Your task to perform on an android device: Clear the cart on target.com. Image 0: 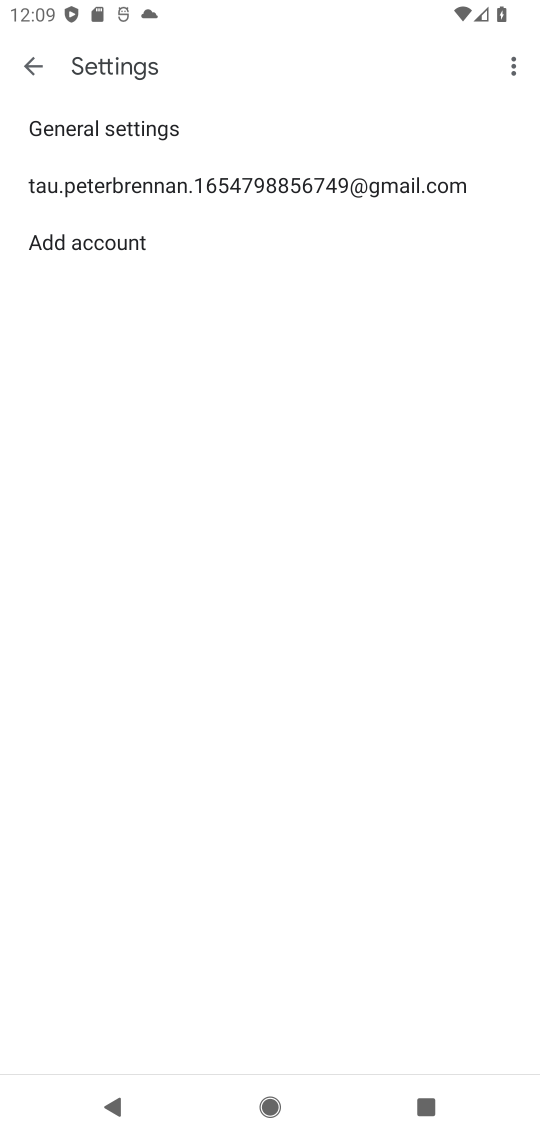
Step 0: press home button
Your task to perform on an android device: Clear the cart on target.com. Image 1: 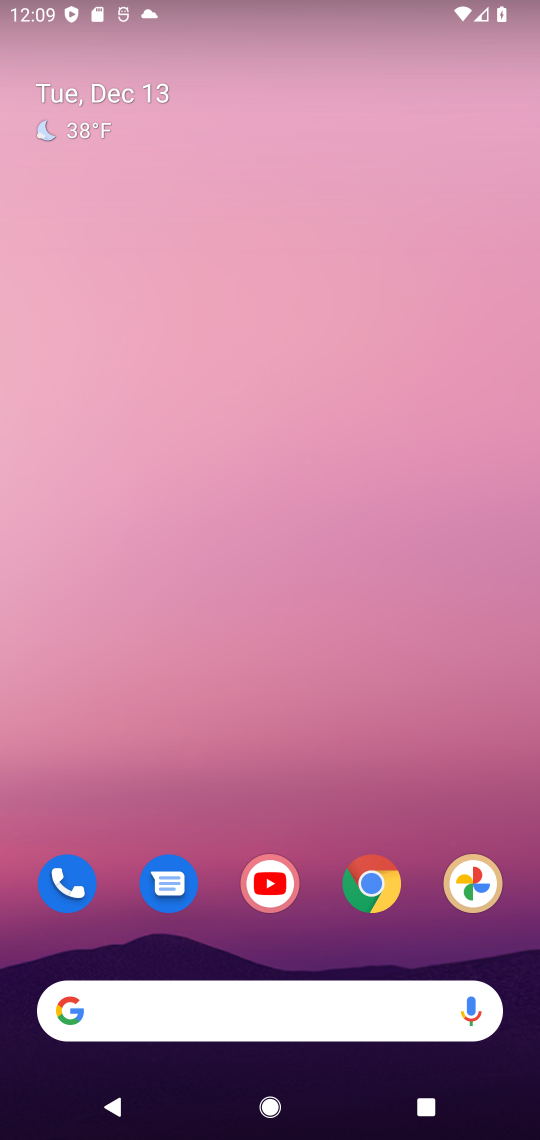
Step 1: click (232, 1005)
Your task to perform on an android device: Clear the cart on target.com. Image 2: 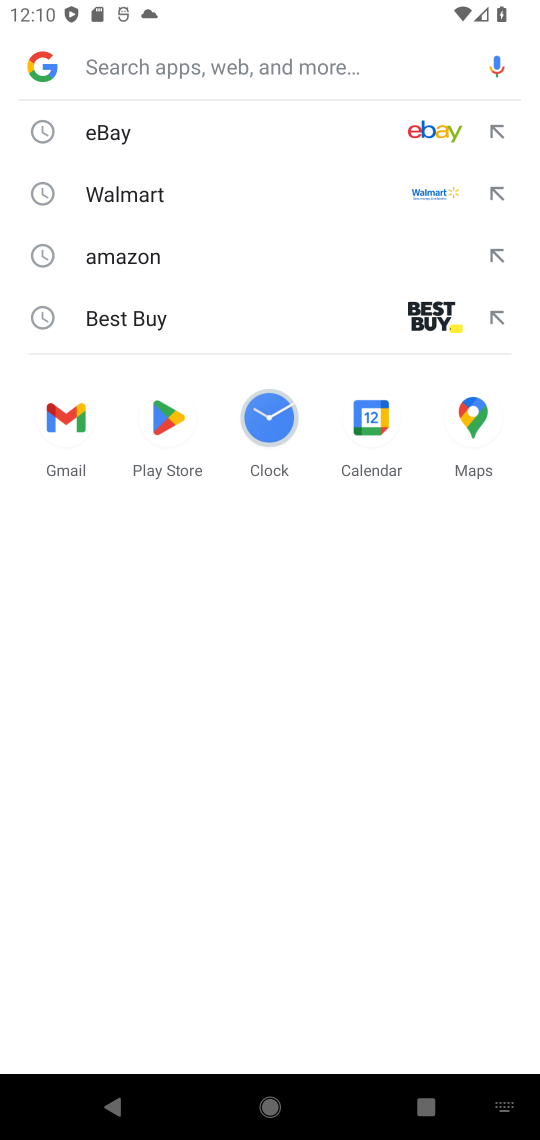
Step 2: type "target.com"
Your task to perform on an android device: Clear the cart on target.com. Image 3: 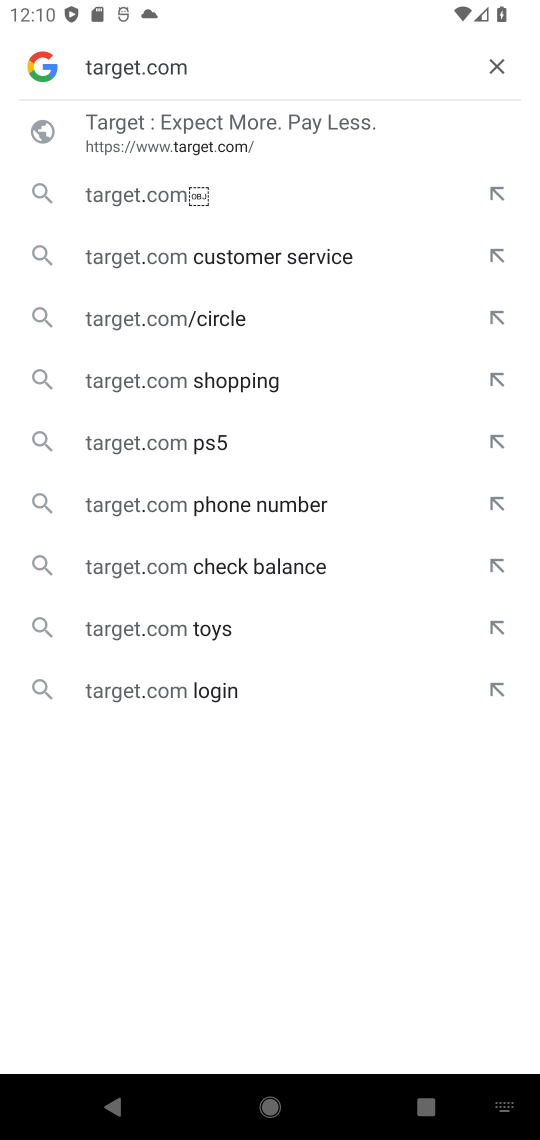
Step 3: click (222, 137)
Your task to perform on an android device: Clear the cart on target.com. Image 4: 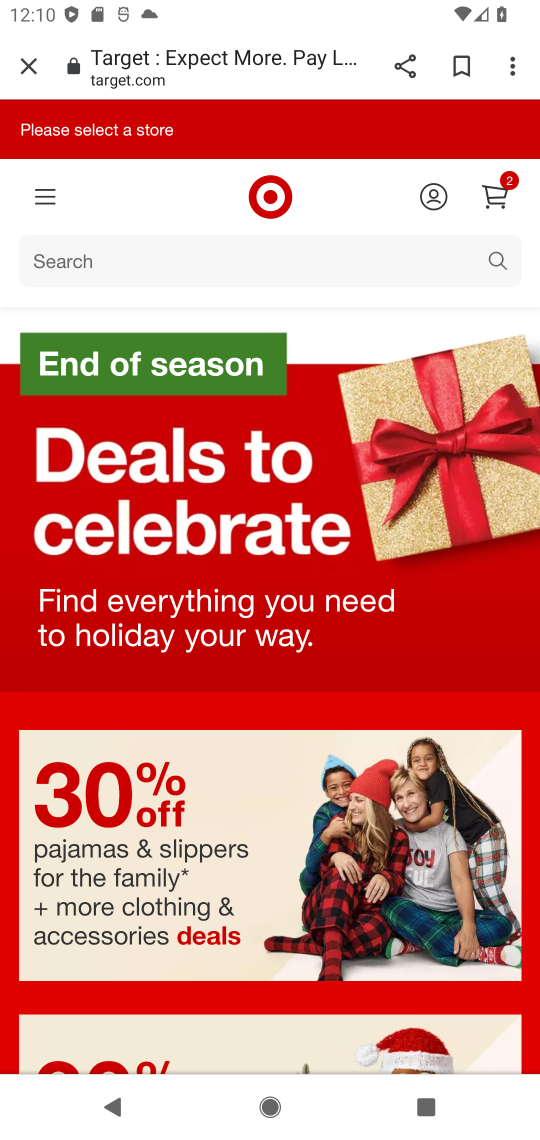
Step 4: click (505, 197)
Your task to perform on an android device: Clear the cart on target.com. Image 5: 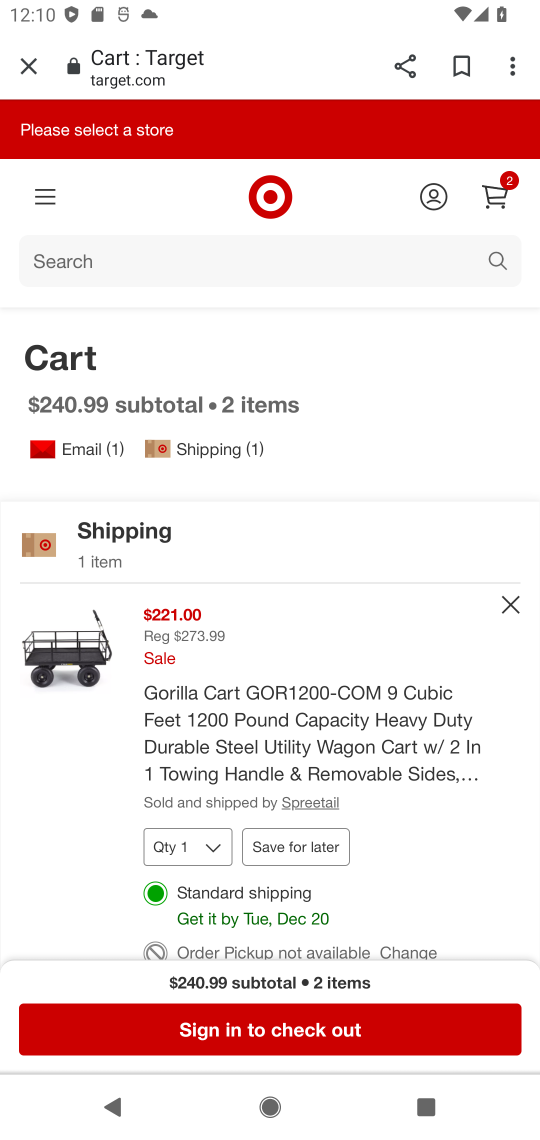
Step 5: drag from (404, 696) to (486, 254)
Your task to perform on an android device: Clear the cart on target.com. Image 6: 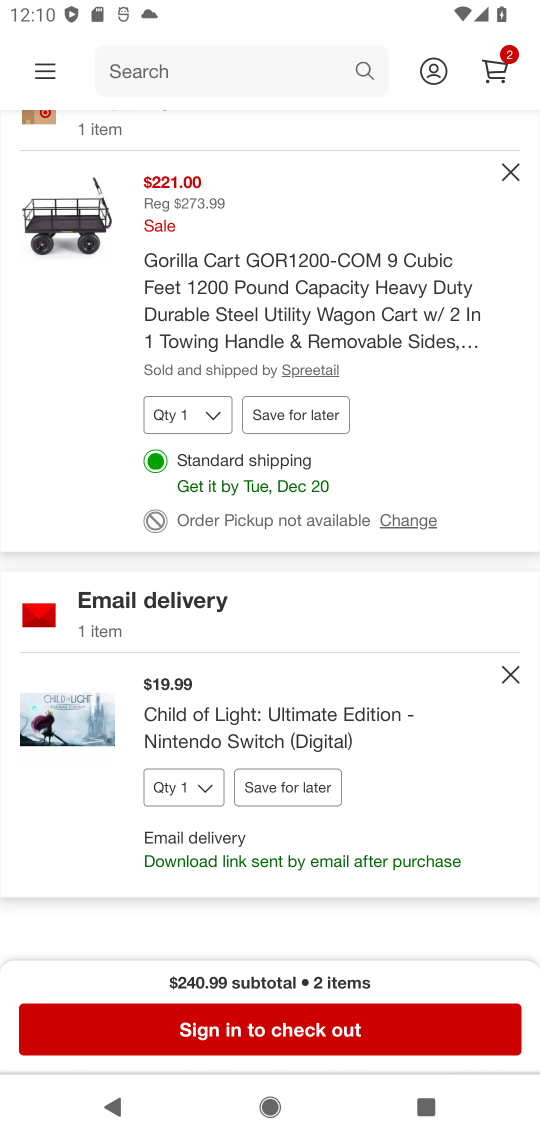
Step 6: click (504, 177)
Your task to perform on an android device: Clear the cart on target.com. Image 7: 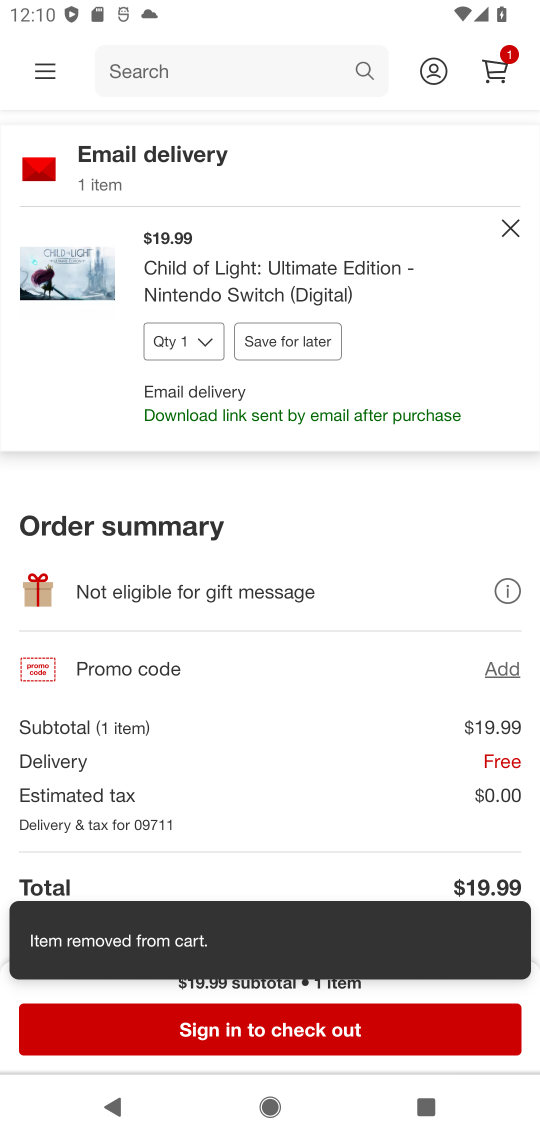
Step 7: click (504, 177)
Your task to perform on an android device: Clear the cart on target.com. Image 8: 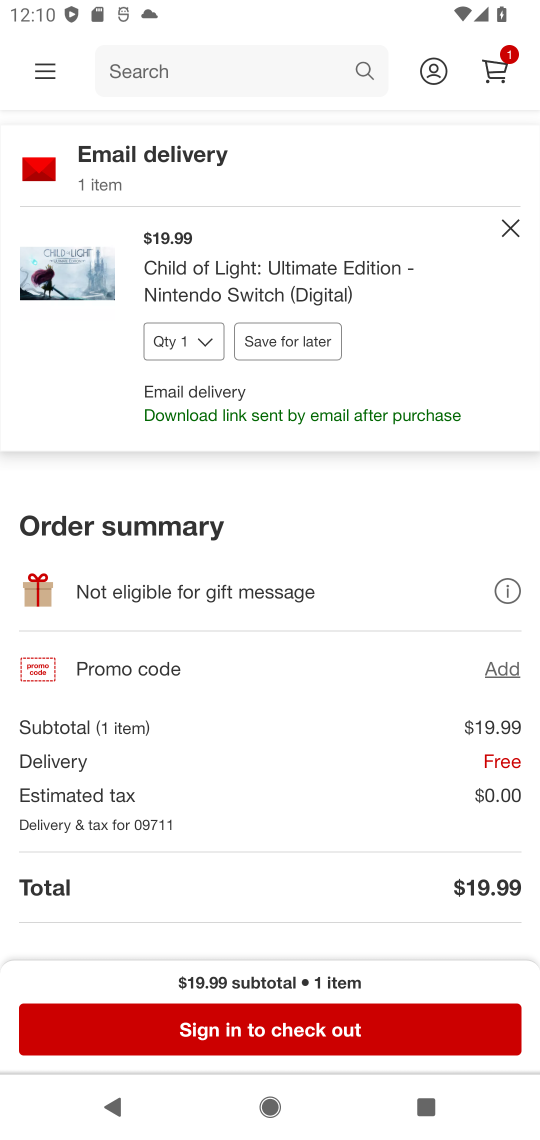
Step 8: click (500, 226)
Your task to perform on an android device: Clear the cart on target.com. Image 9: 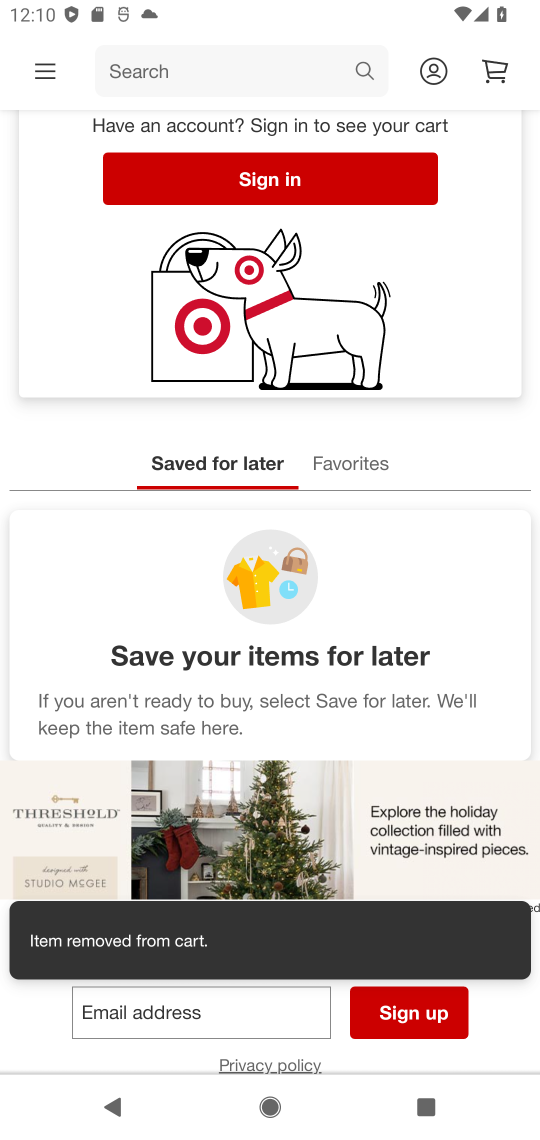
Step 9: task complete